Your task to perform on an android device: snooze an email in the gmail app Image 0: 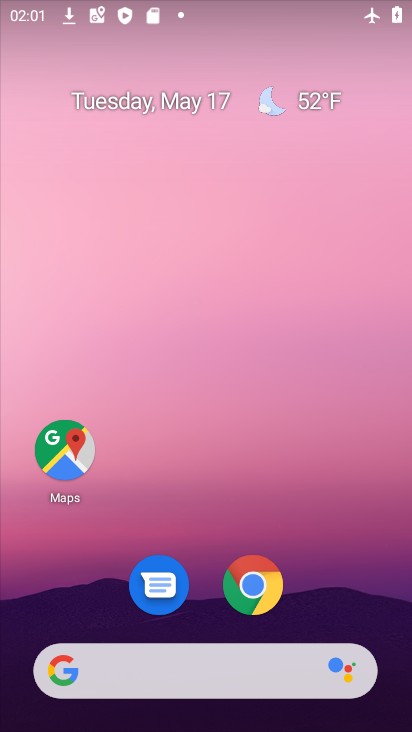
Step 0: drag from (305, 507) to (298, 1)
Your task to perform on an android device: snooze an email in the gmail app Image 1: 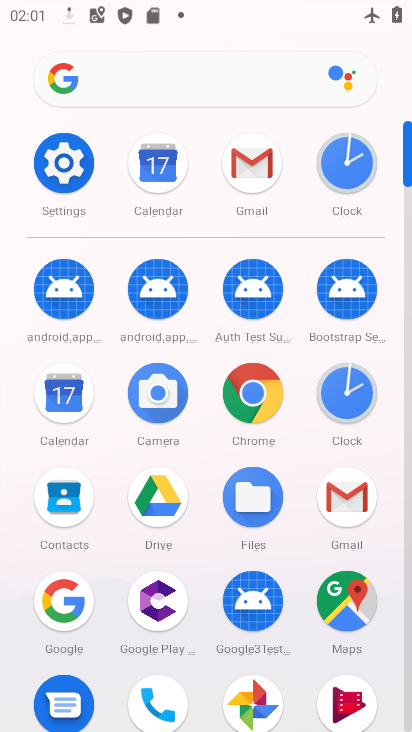
Step 1: click (254, 157)
Your task to perform on an android device: snooze an email in the gmail app Image 2: 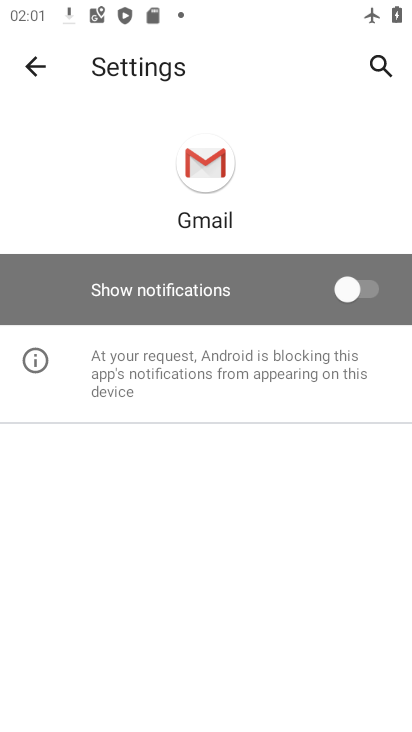
Step 2: click (41, 64)
Your task to perform on an android device: snooze an email in the gmail app Image 3: 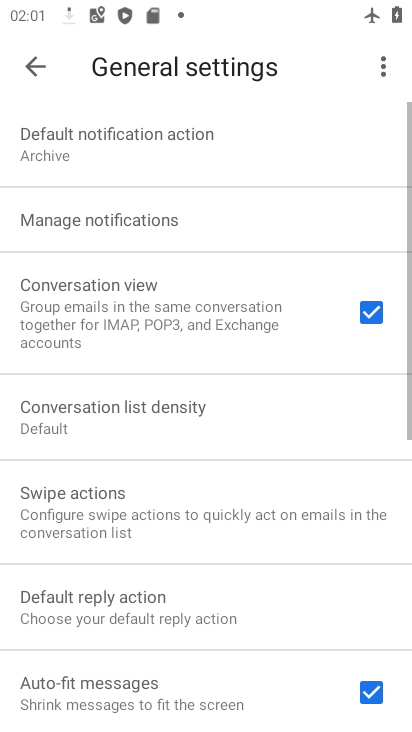
Step 3: click (41, 65)
Your task to perform on an android device: snooze an email in the gmail app Image 4: 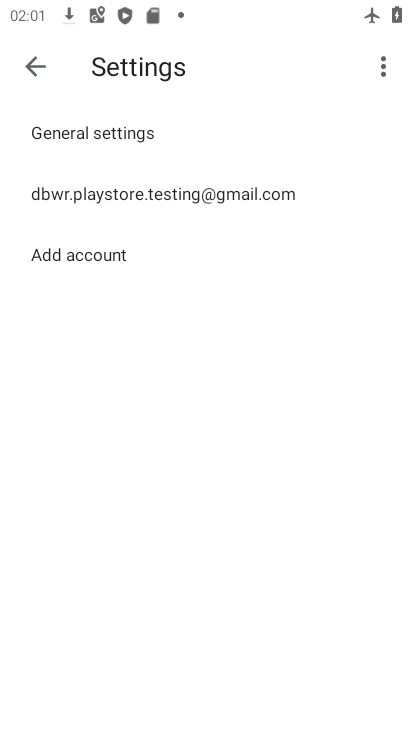
Step 4: click (41, 64)
Your task to perform on an android device: snooze an email in the gmail app Image 5: 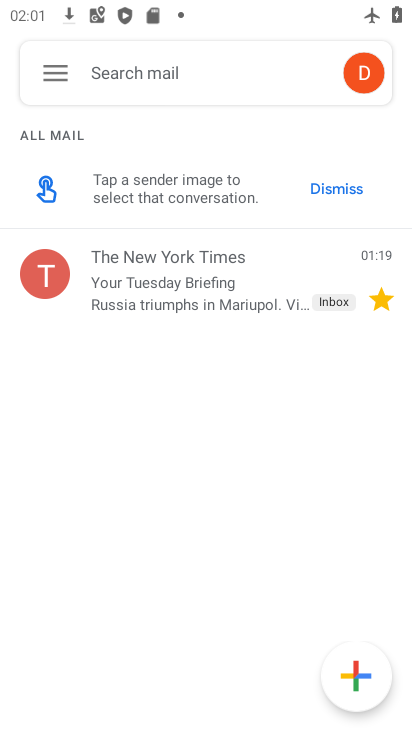
Step 5: click (181, 281)
Your task to perform on an android device: snooze an email in the gmail app Image 6: 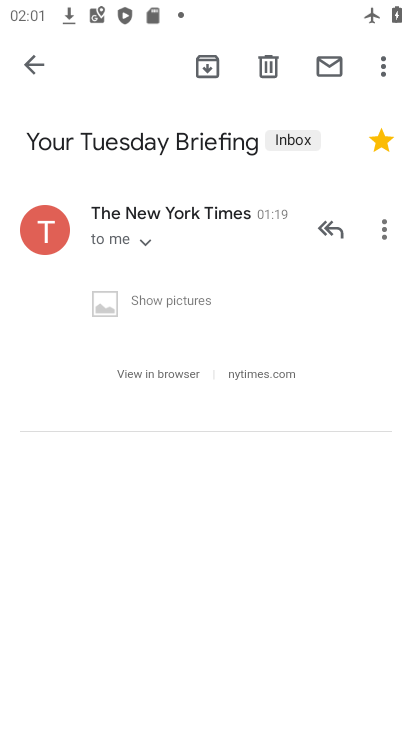
Step 6: click (386, 227)
Your task to perform on an android device: snooze an email in the gmail app Image 7: 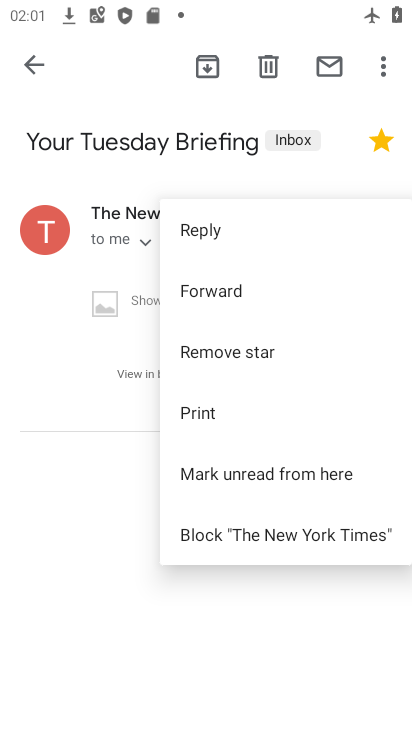
Step 7: click (383, 62)
Your task to perform on an android device: snooze an email in the gmail app Image 8: 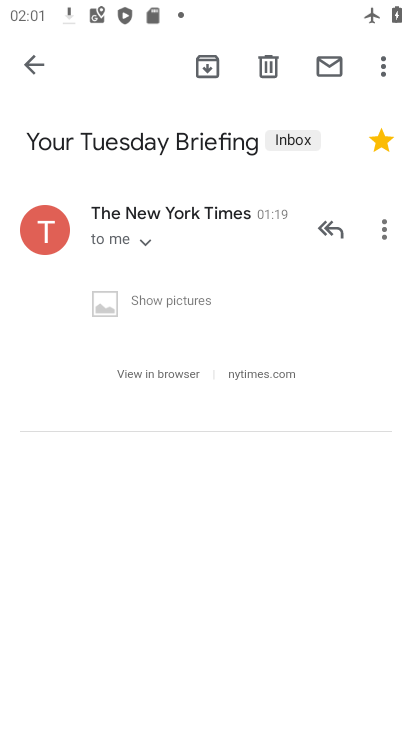
Step 8: click (383, 62)
Your task to perform on an android device: snooze an email in the gmail app Image 9: 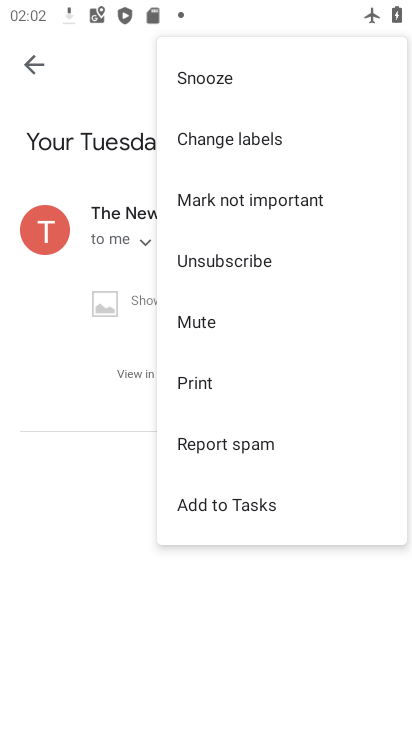
Step 9: click (299, 68)
Your task to perform on an android device: snooze an email in the gmail app Image 10: 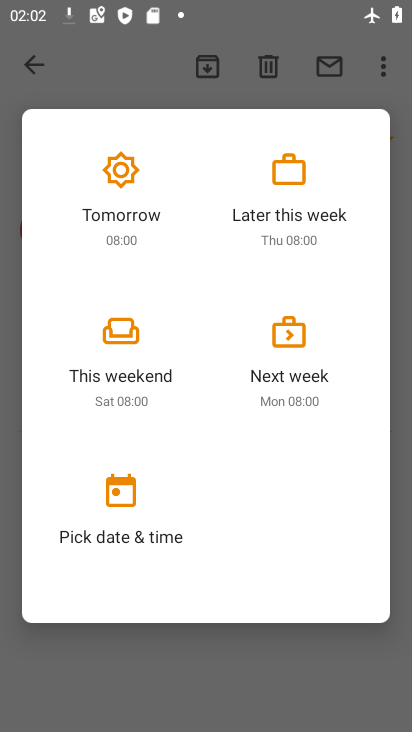
Step 10: click (146, 193)
Your task to perform on an android device: snooze an email in the gmail app Image 11: 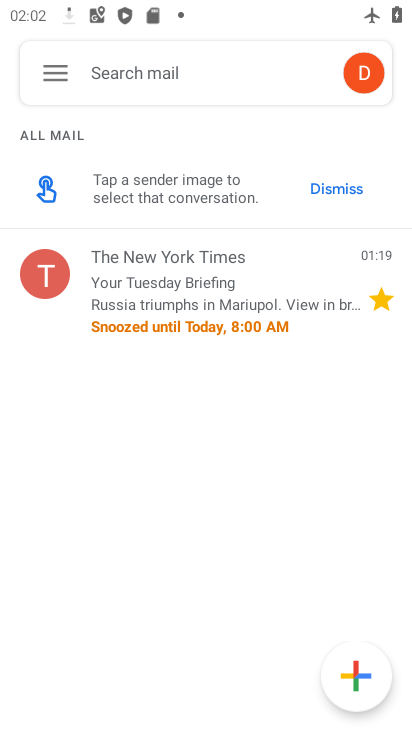
Step 11: task complete